Your task to perform on an android device: Open the map Image 0: 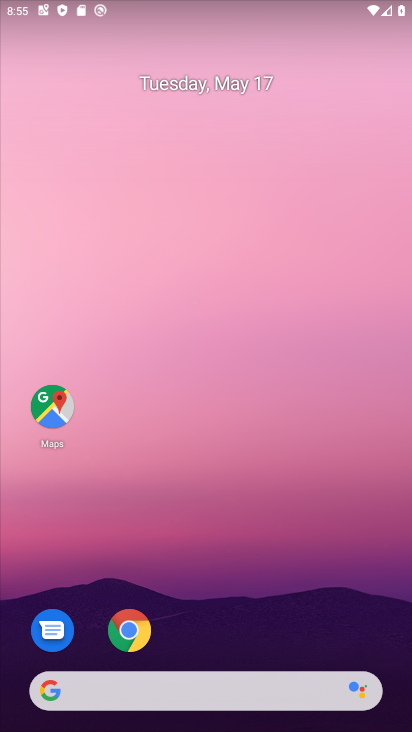
Step 0: click (61, 411)
Your task to perform on an android device: Open the map Image 1: 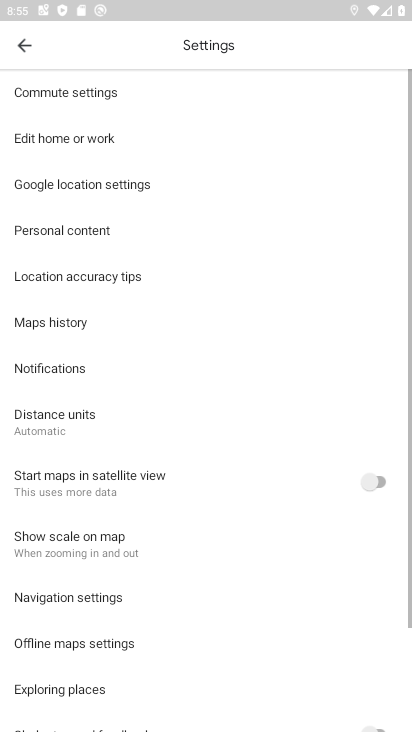
Step 1: task complete